Your task to perform on an android device: check data usage Image 0: 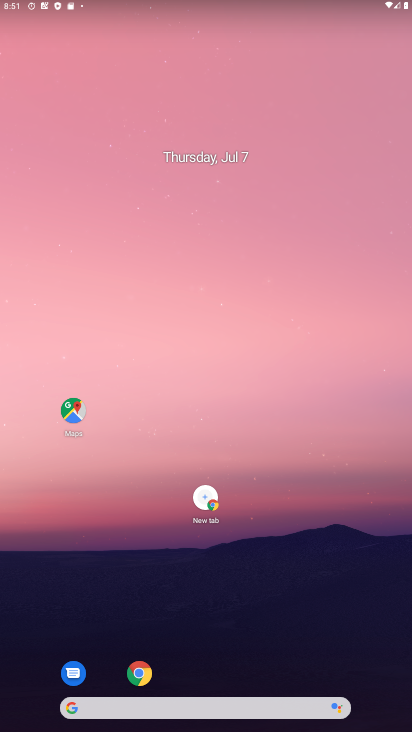
Step 0: press home button
Your task to perform on an android device: check data usage Image 1: 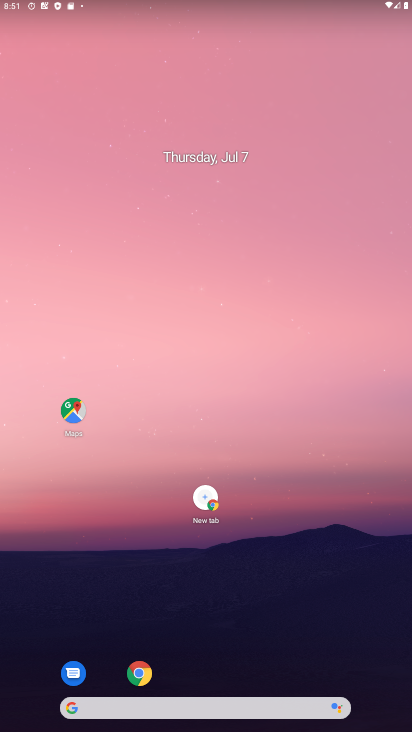
Step 1: drag from (259, 668) to (207, 82)
Your task to perform on an android device: check data usage Image 2: 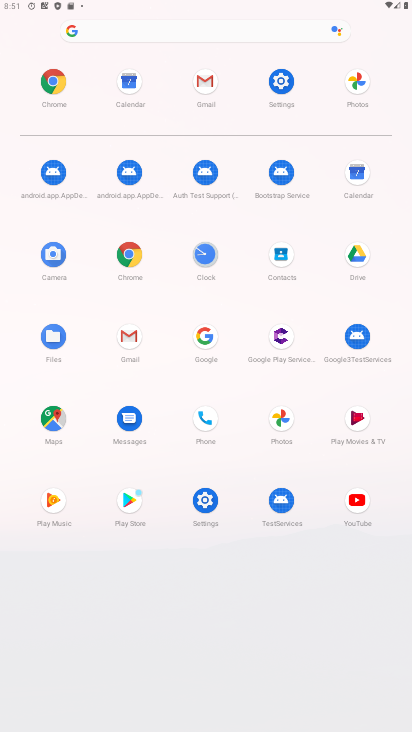
Step 2: click (283, 92)
Your task to perform on an android device: check data usage Image 3: 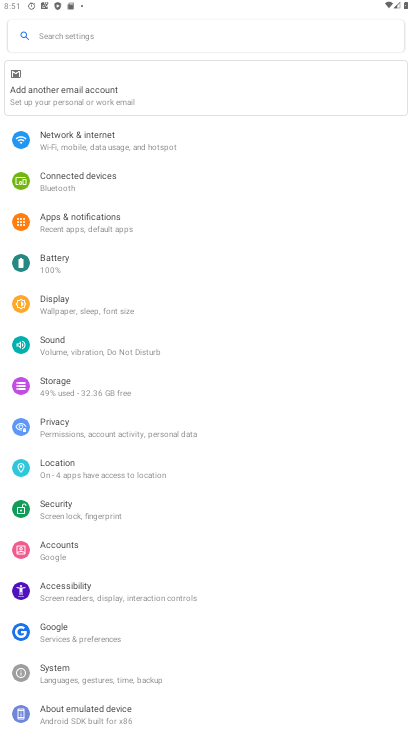
Step 3: click (83, 139)
Your task to perform on an android device: check data usage Image 4: 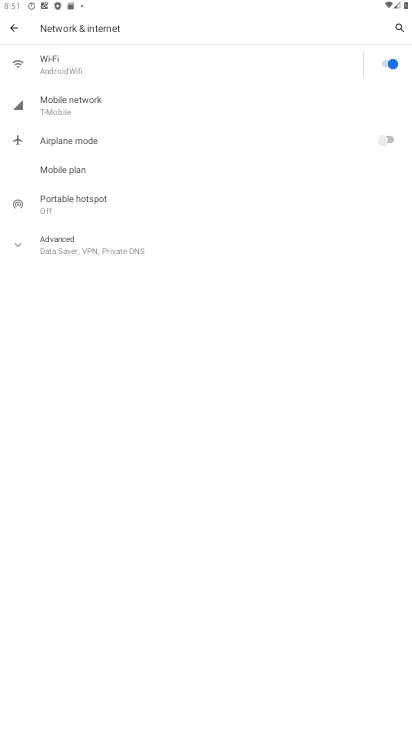
Step 4: click (73, 104)
Your task to perform on an android device: check data usage Image 5: 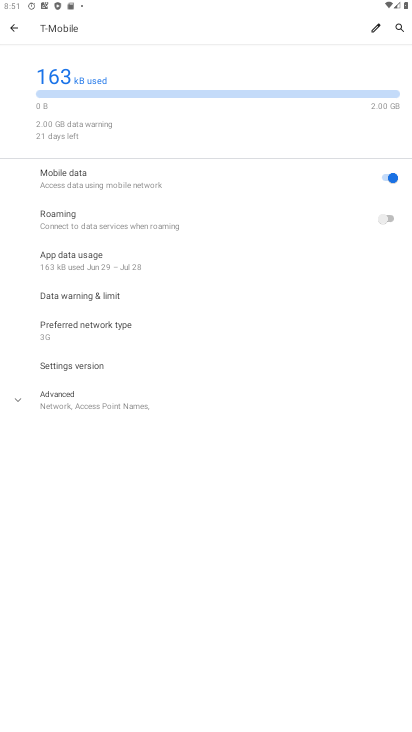
Step 5: click (69, 259)
Your task to perform on an android device: check data usage Image 6: 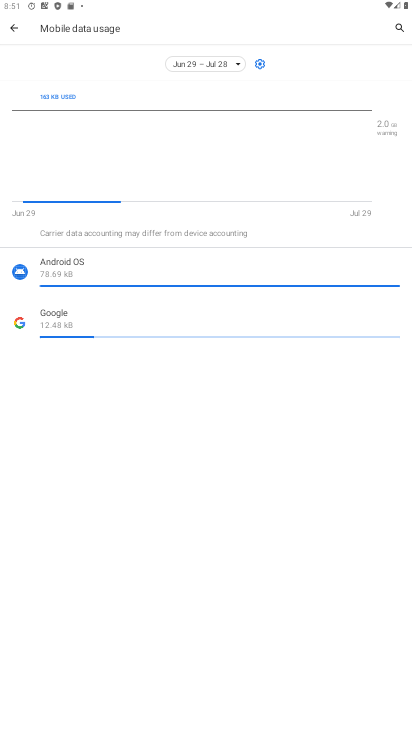
Step 6: task complete